Your task to perform on an android device: Open Chrome and go to settings Image 0: 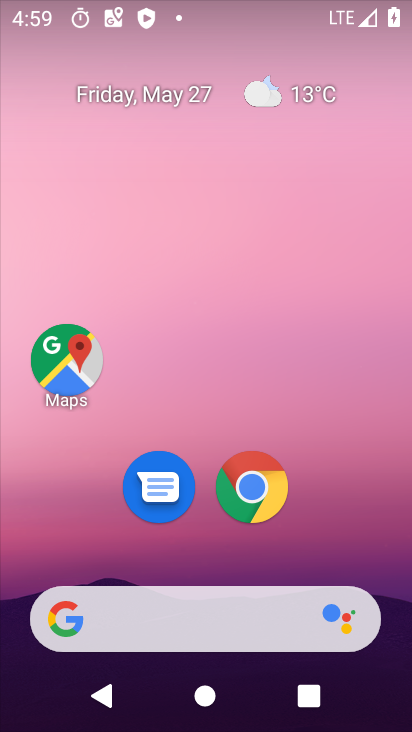
Step 0: click (250, 480)
Your task to perform on an android device: Open Chrome and go to settings Image 1: 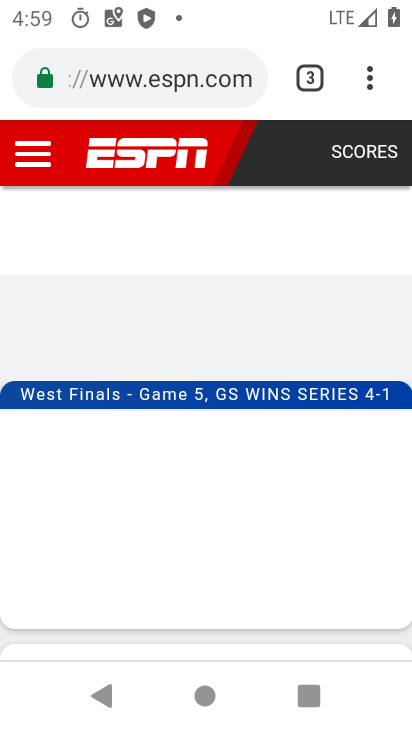
Step 1: task complete